Your task to perform on an android device: Open Chrome and go to settings Image 0: 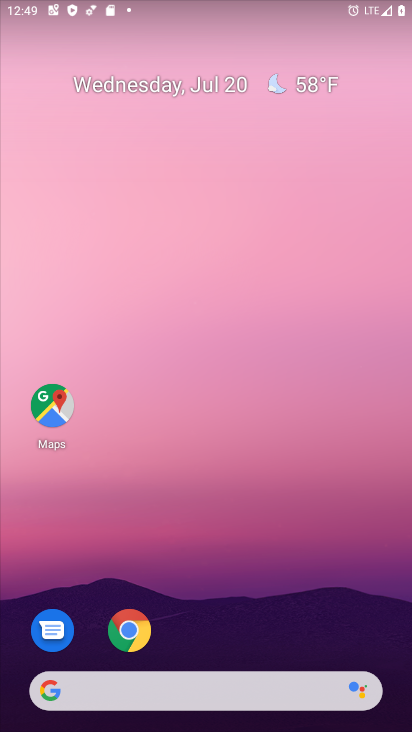
Step 0: drag from (263, 728) to (218, 162)
Your task to perform on an android device: Open Chrome and go to settings Image 1: 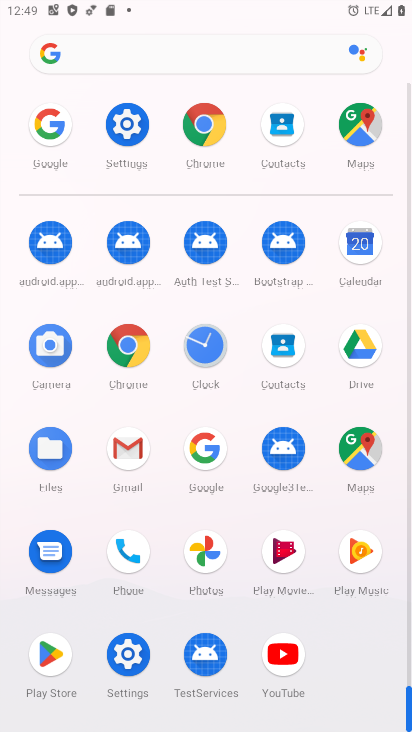
Step 1: click (136, 358)
Your task to perform on an android device: Open Chrome and go to settings Image 2: 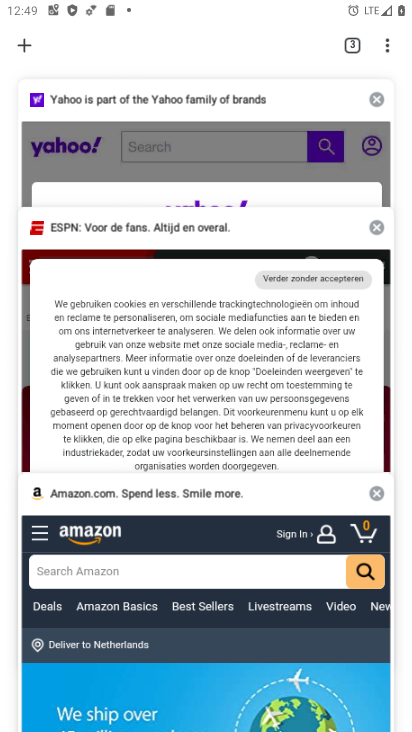
Step 2: click (388, 46)
Your task to perform on an android device: Open Chrome and go to settings Image 3: 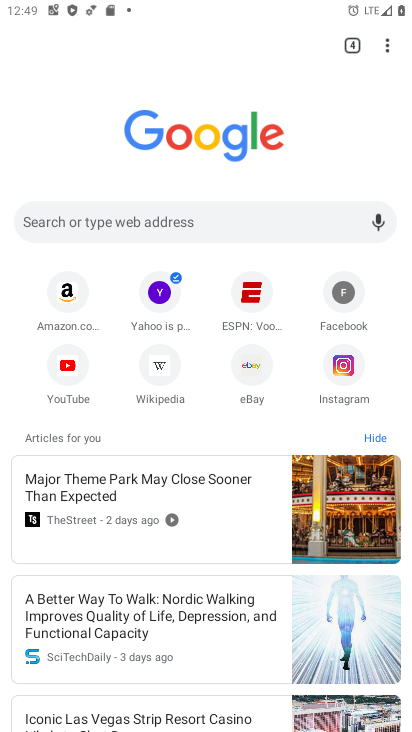
Step 3: click (390, 50)
Your task to perform on an android device: Open Chrome and go to settings Image 4: 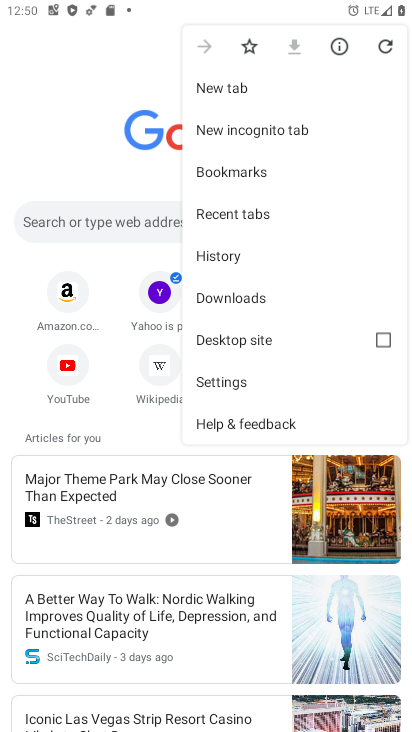
Step 4: click (249, 387)
Your task to perform on an android device: Open Chrome and go to settings Image 5: 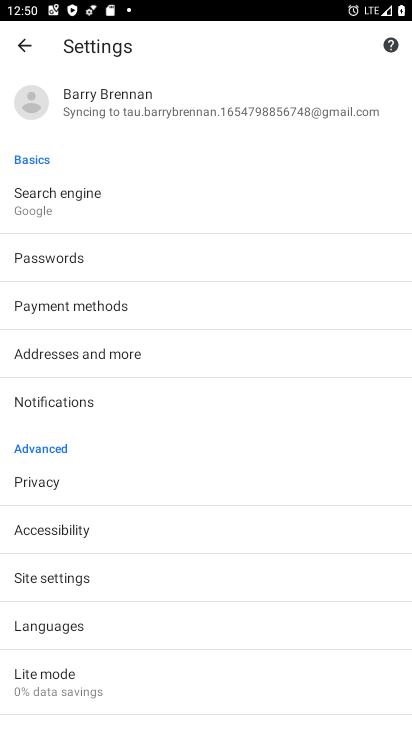
Step 5: task complete